Your task to perform on an android device: allow cookies in the chrome app Image 0: 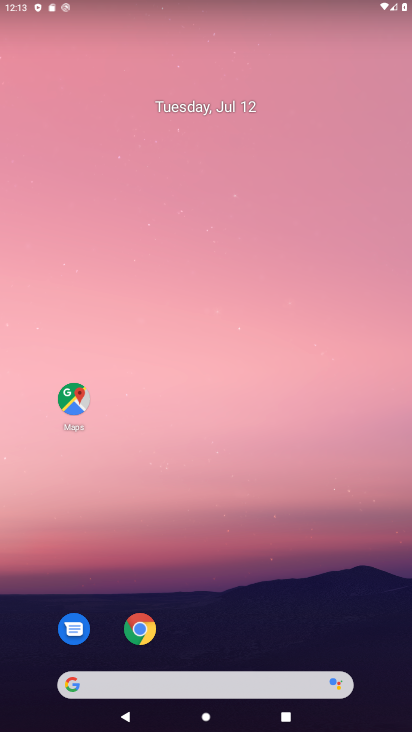
Step 0: drag from (335, 648) to (293, 29)
Your task to perform on an android device: allow cookies in the chrome app Image 1: 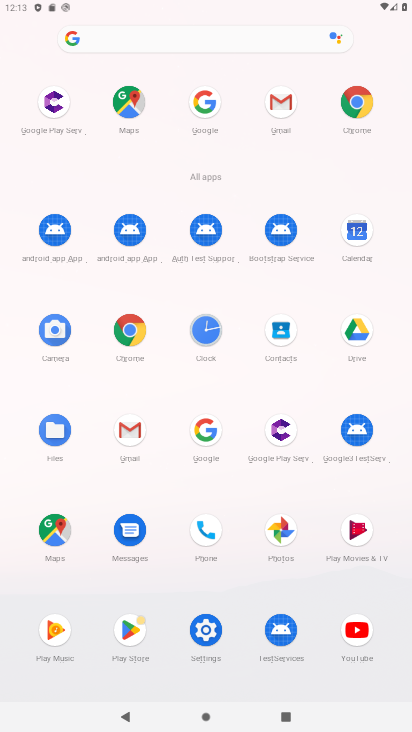
Step 1: click (131, 329)
Your task to perform on an android device: allow cookies in the chrome app Image 2: 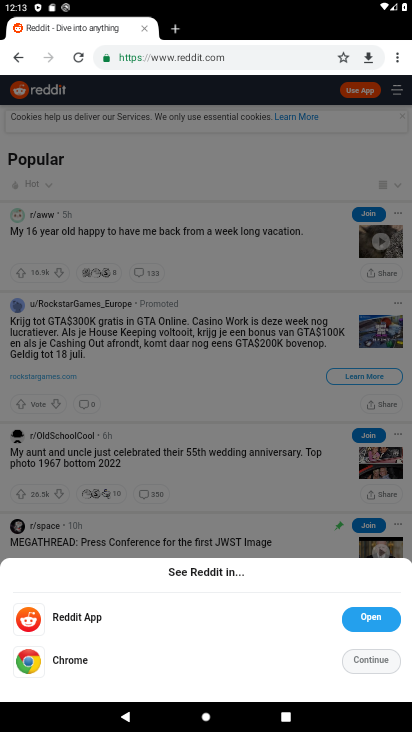
Step 2: drag from (393, 49) to (291, 373)
Your task to perform on an android device: allow cookies in the chrome app Image 3: 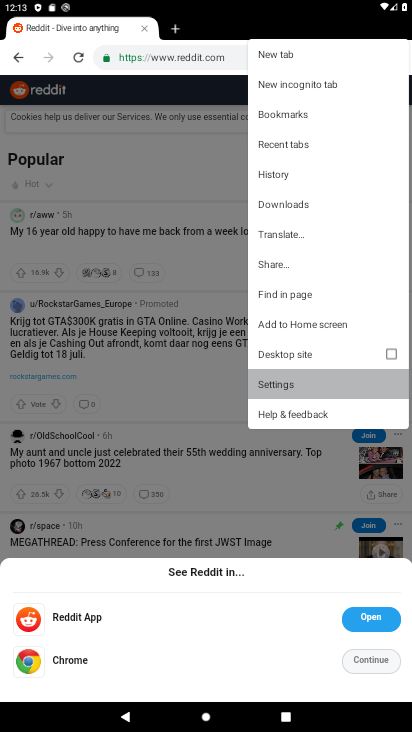
Step 3: click (291, 373)
Your task to perform on an android device: allow cookies in the chrome app Image 4: 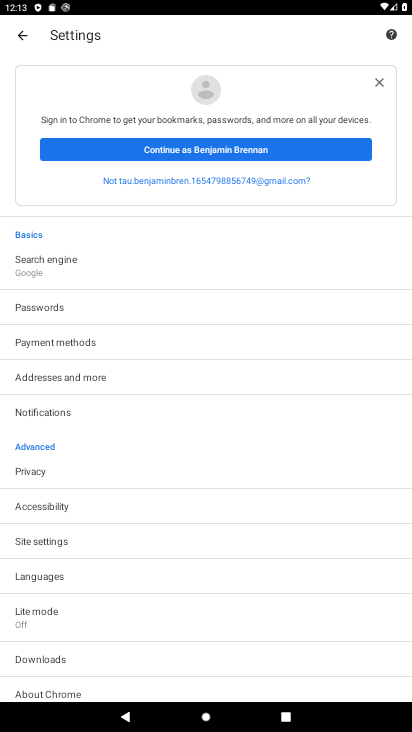
Step 4: click (59, 540)
Your task to perform on an android device: allow cookies in the chrome app Image 5: 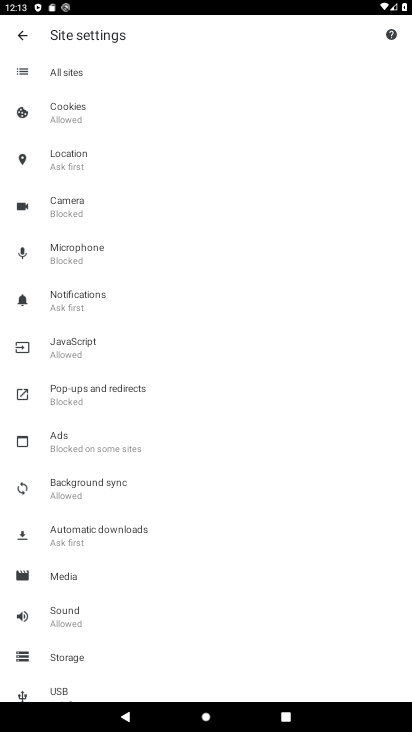
Step 5: click (71, 114)
Your task to perform on an android device: allow cookies in the chrome app Image 6: 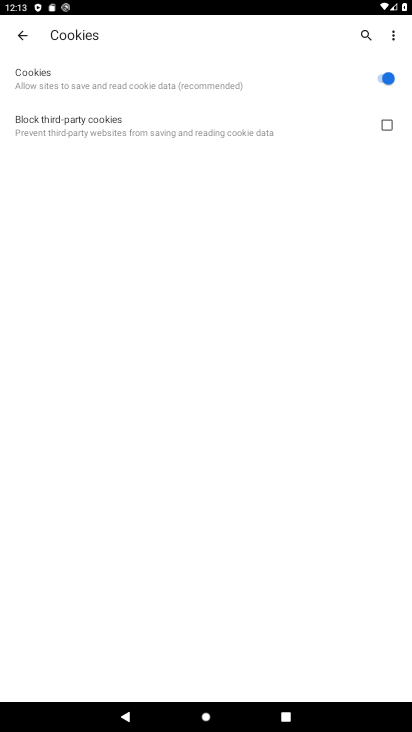
Step 6: task complete